Your task to perform on an android device: change text size in settings app Image 0: 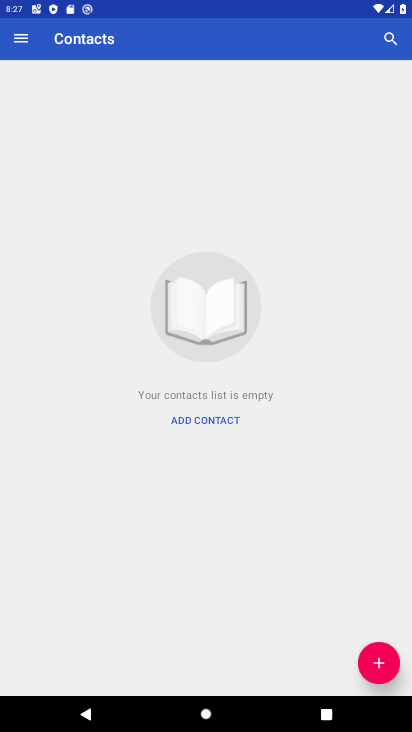
Step 0: press home button
Your task to perform on an android device: change text size in settings app Image 1: 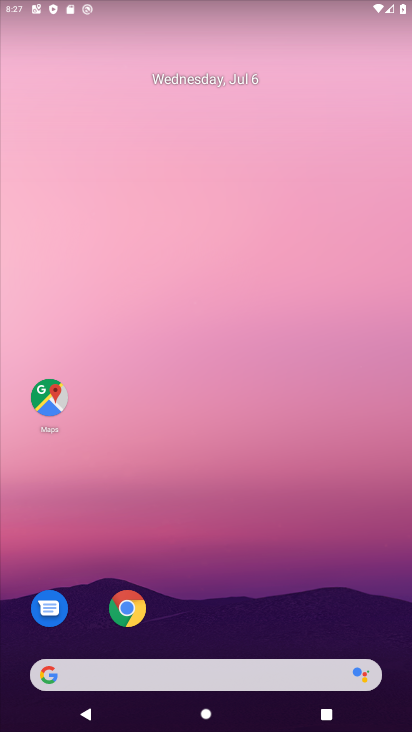
Step 1: drag from (187, 668) to (229, 225)
Your task to perform on an android device: change text size in settings app Image 2: 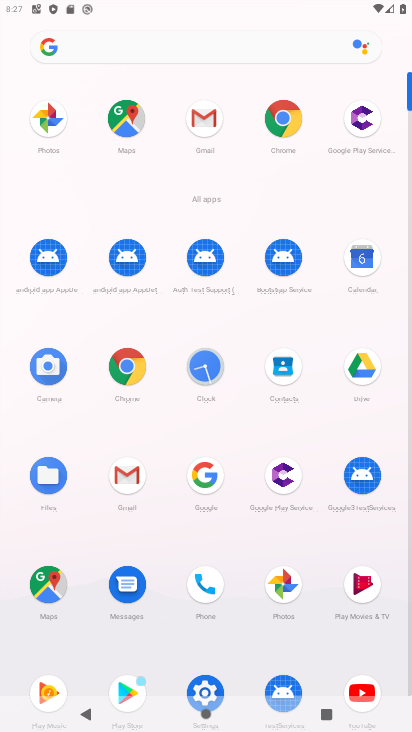
Step 2: click (215, 693)
Your task to perform on an android device: change text size in settings app Image 3: 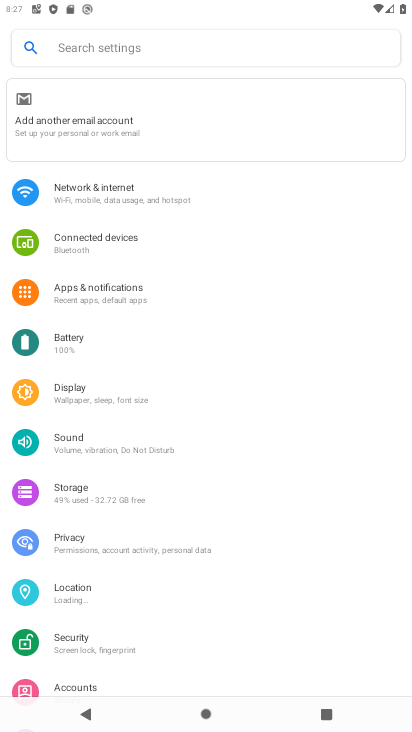
Step 3: drag from (81, 616) to (104, 330)
Your task to perform on an android device: change text size in settings app Image 4: 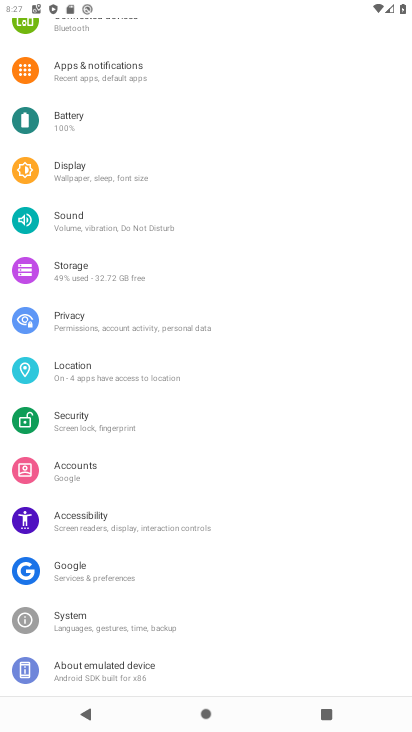
Step 4: click (78, 519)
Your task to perform on an android device: change text size in settings app Image 5: 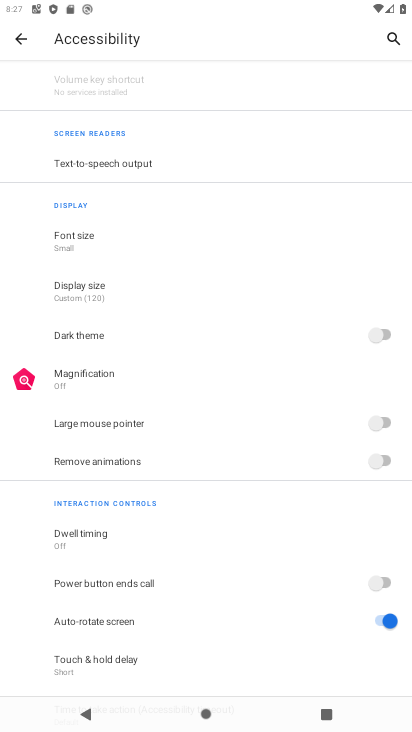
Step 5: click (77, 237)
Your task to perform on an android device: change text size in settings app Image 6: 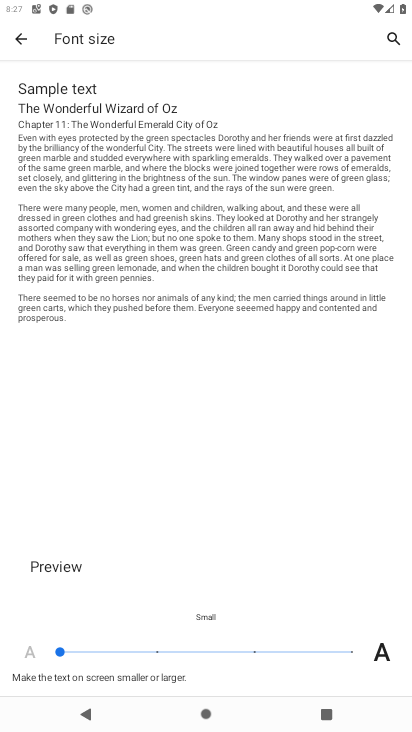
Step 6: click (136, 651)
Your task to perform on an android device: change text size in settings app Image 7: 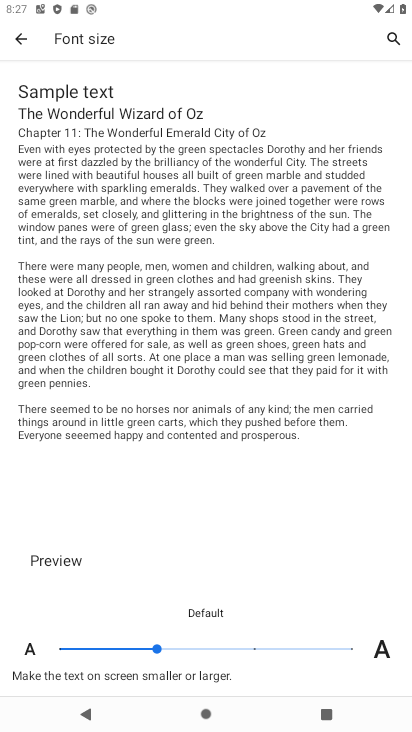
Step 7: task complete